Your task to perform on an android device: Open settings Image 0: 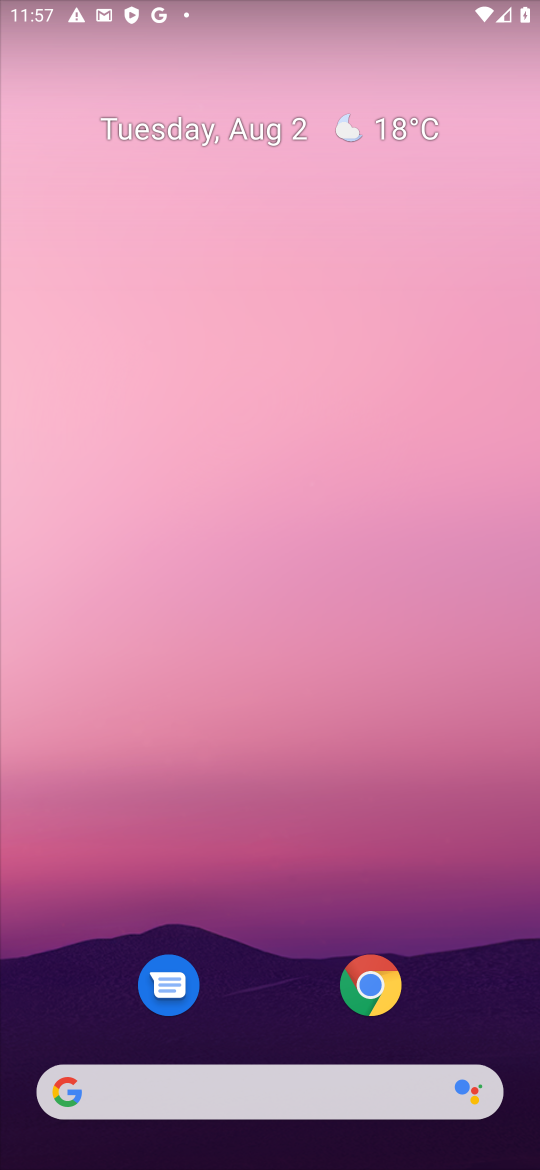
Step 0: drag from (271, 1055) to (220, 122)
Your task to perform on an android device: Open settings Image 1: 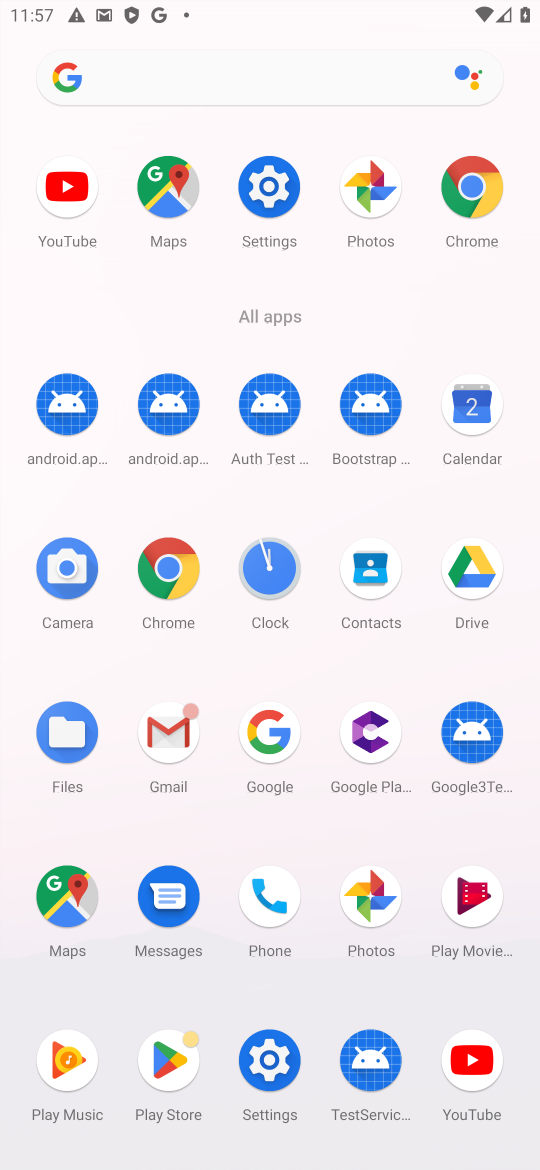
Step 1: click (259, 205)
Your task to perform on an android device: Open settings Image 2: 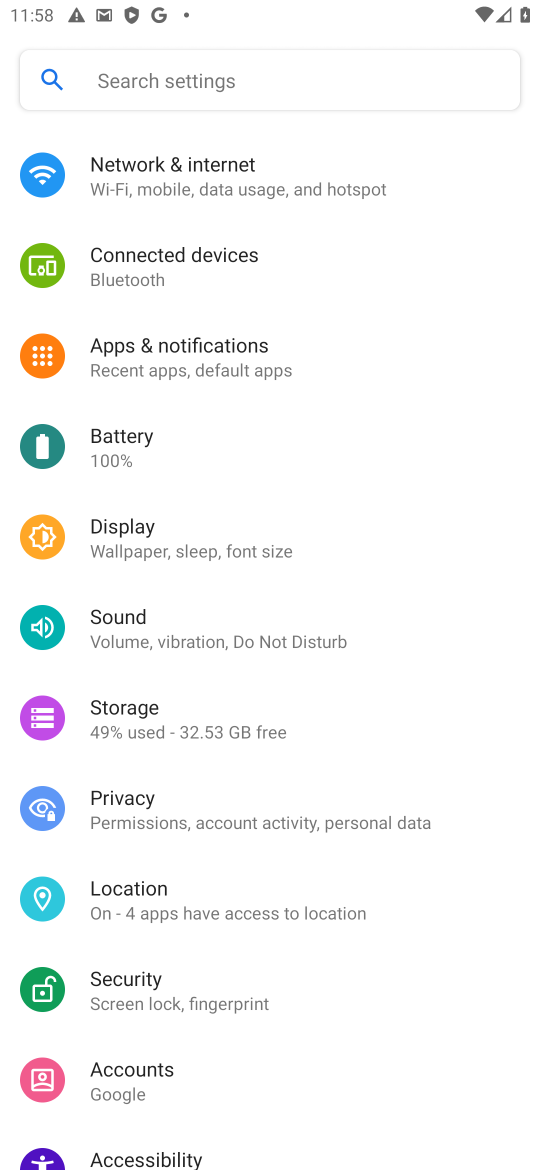
Step 2: task complete